Your task to perform on an android device: Go to Yahoo.com Image 0: 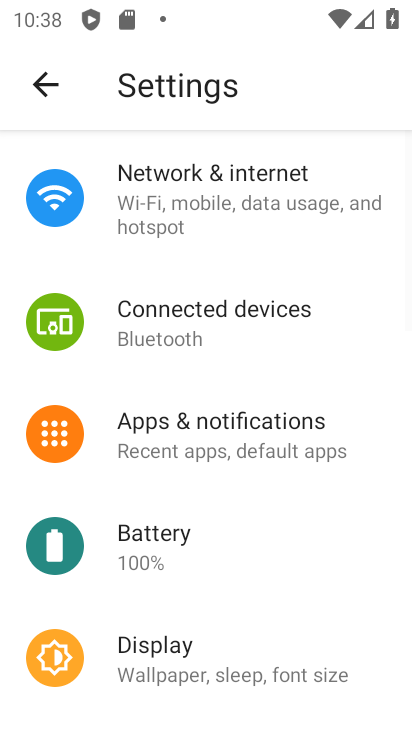
Step 0: press home button
Your task to perform on an android device: Go to Yahoo.com Image 1: 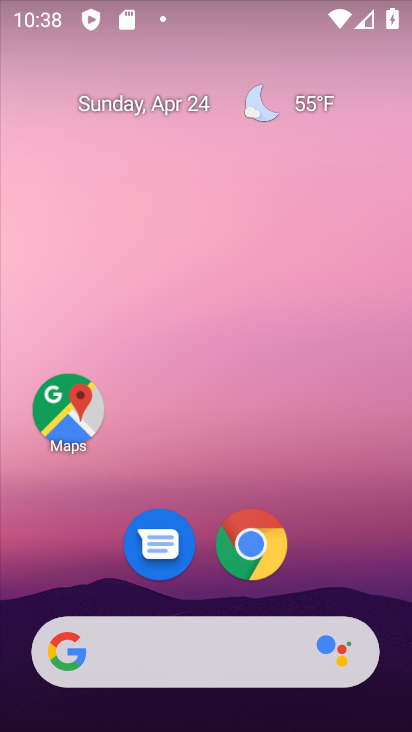
Step 1: click (263, 542)
Your task to perform on an android device: Go to Yahoo.com Image 2: 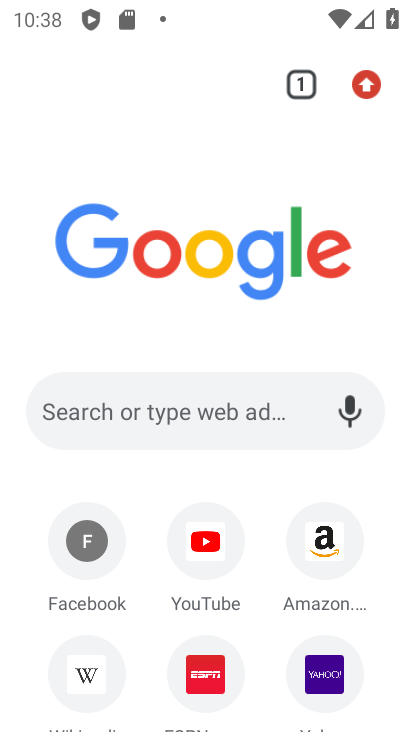
Step 2: click (316, 680)
Your task to perform on an android device: Go to Yahoo.com Image 3: 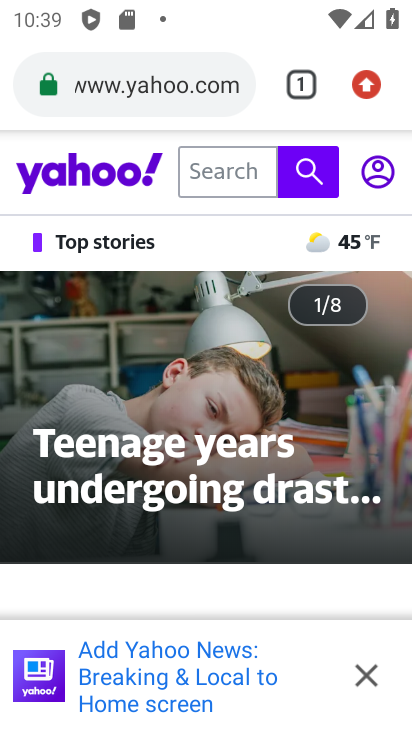
Step 3: task complete